Your task to perform on an android device: What's the weather? Image 0: 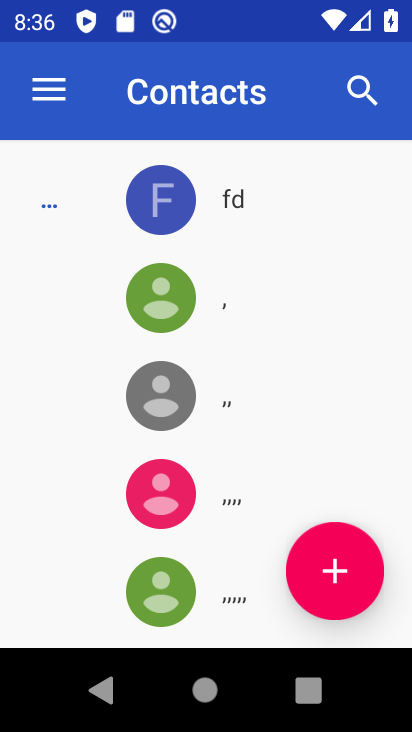
Step 0: press home button
Your task to perform on an android device: What's the weather? Image 1: 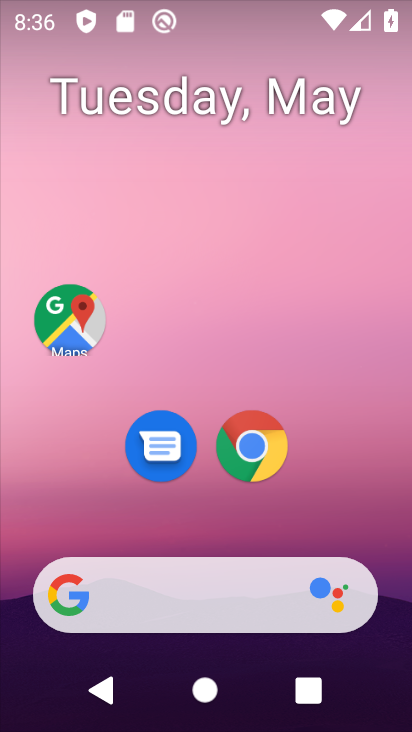
Step 1: click (234, 592)
Your task to perform on an android device: What's the weather? Image 2: 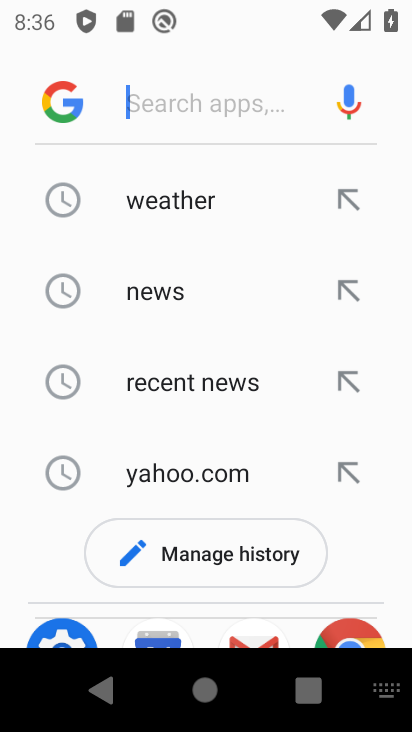
Step 2: click (234, 592)
Your task to perform on an android device: What's the weather? Image 3: 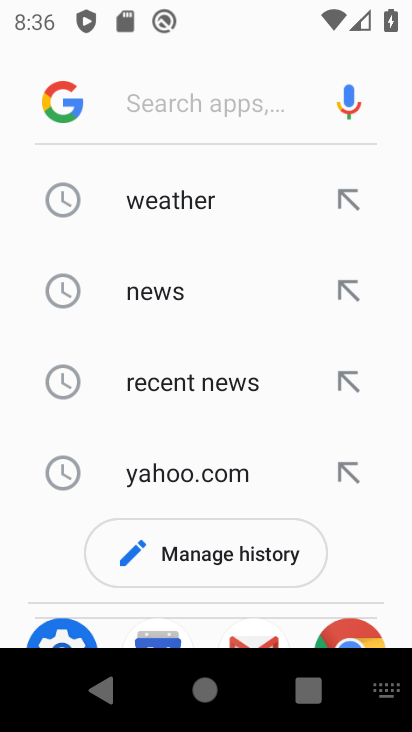
Step 3: click (188, 208)
Your task to perform on an android device: What's the weather? Image 4: 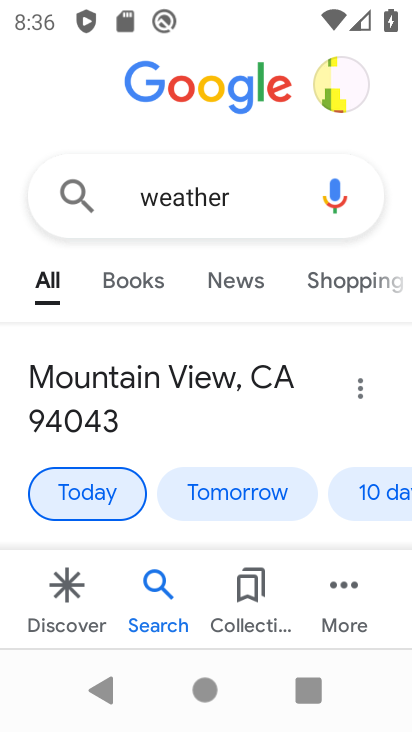
Step 4: task complete